Your task to perform on an android device: Search for seafood restaurants on Google Maps Image 0: 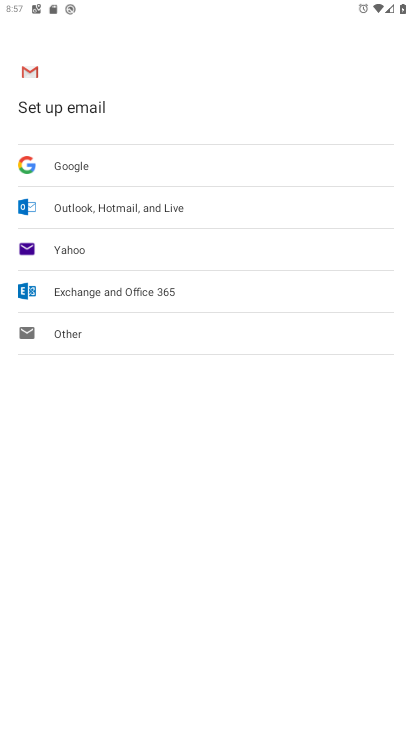
Step 0: press home button
Your task to perform on an android device: Search for seafood restaurants on Google Maps Image 1: 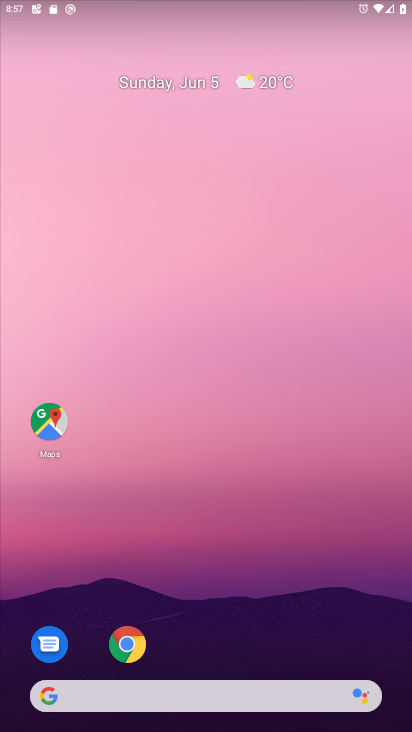
Step 1: drag from (288, 637) to (355, 103)
Your task to perform on an android device: Search for seafood restaurants on Google Maps Image 2: 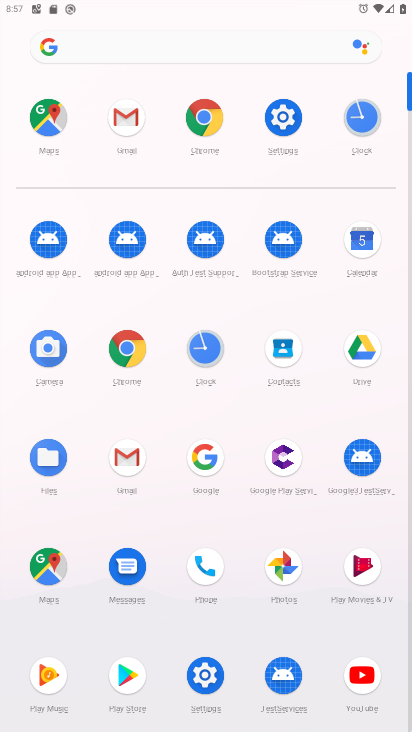
Step 2: click (35, 589)
Your task to perform on an android device: Search for seafood restaurants on Google Maps Image 3: 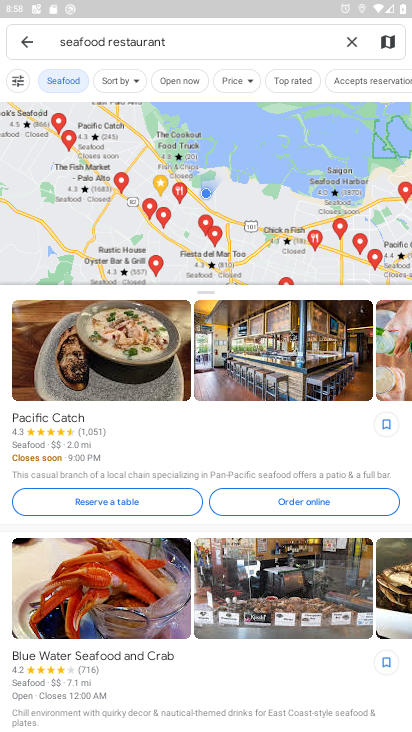
Step 3: task complete